Your task to perform on an android device: Open settings Image 0: 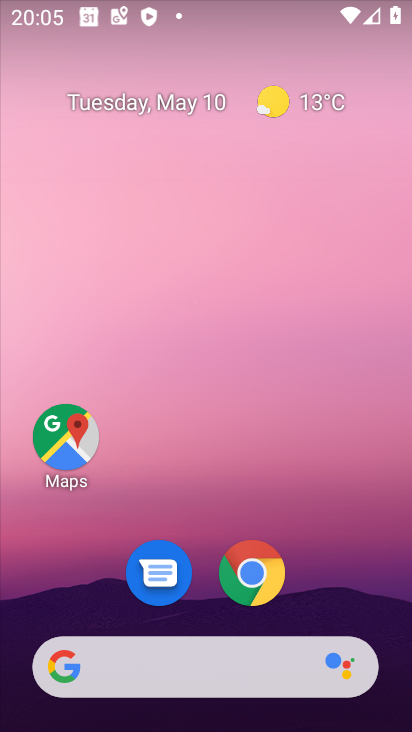
Step 0: drag from (397, 613) to (363, 4)
Your task to perform on an android device: Open settings Image 1: 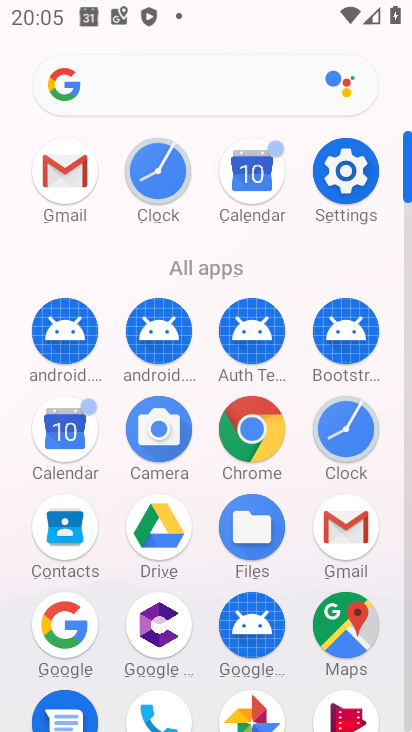
Step 1: click (349, 172)
Your task to perform on an android device: Open settings Image 2: 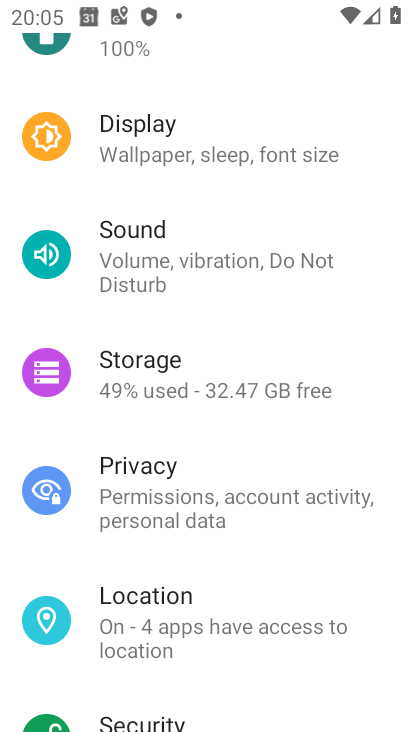
Step 2: task complete